Your task to perform on an android device: allow notifications from all sites in the chrome app Image 0: 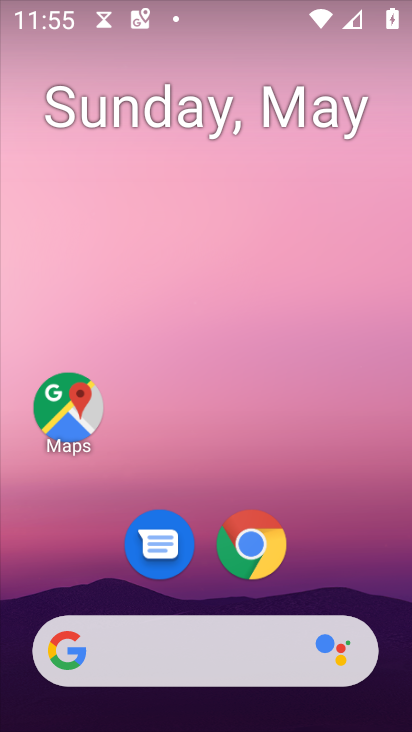
Step 0: click (246, 544)
Your task to perform on an android device: allow notifications from all sites in the chrome app Image 1: 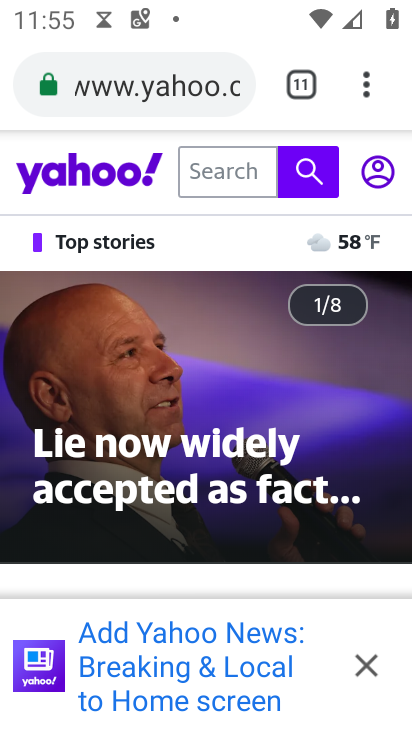
Step 1: click (356, 85)
Your task to perform on an android device: allow notifications from all sites in the chrome app Image 2: 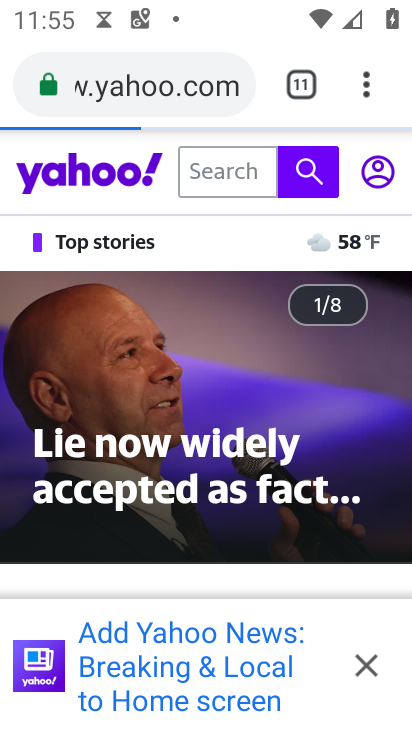
Step 2: click (354, 79)
Your task to perform on an android device: allow notifications from all sites in the chrome app Image 3: 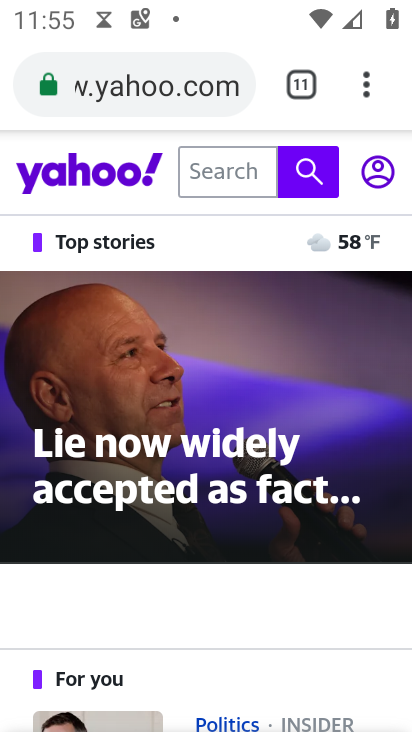
Step 3: click (379, 82)
Your task to perform on an android device: allow notifications from all sites in the chrome app Image 4: 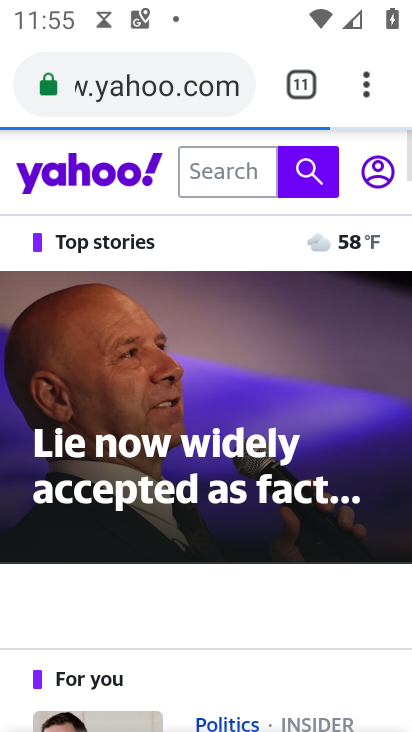
Step 4: click (378, 91)
Your task to perform on an android device: allow notifications from all sites in the chrome app Image 5: 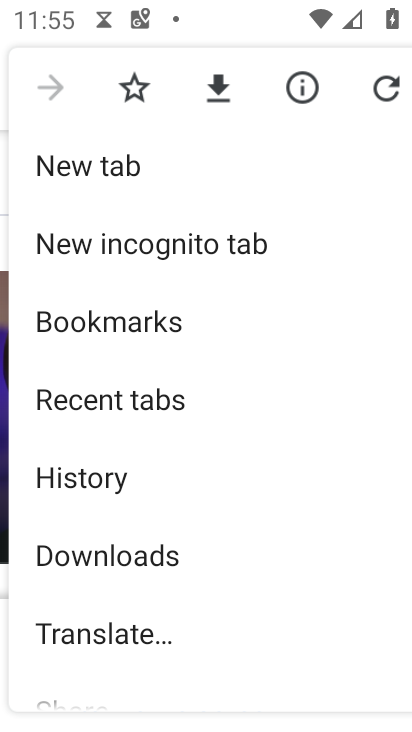
Step 5: drag from (264, 590) to (264, 287)
Your task to perform on an android device: allow notifications from all sites in the chrome app Image 6: 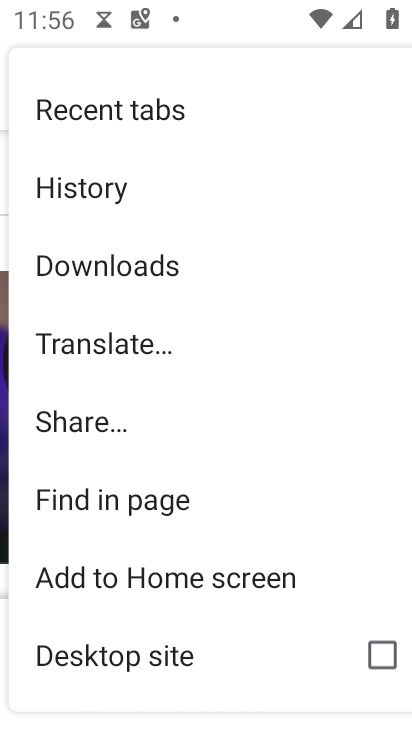
Step 6: drag from (150, 614) to (206, 178)
Your task to perform on an android device: allow notifications from all sites in the chrome app Image 7: 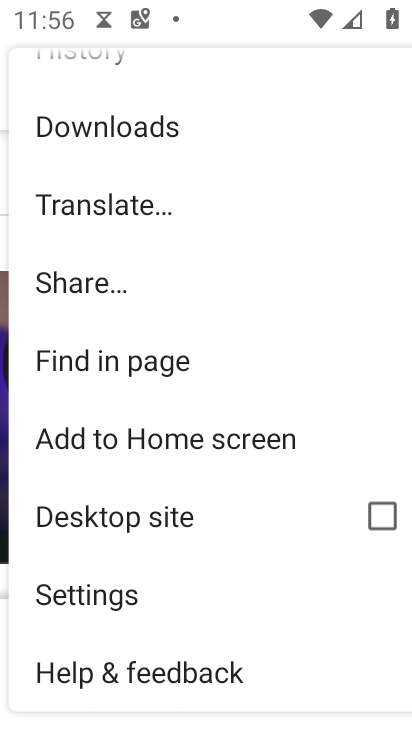
Step 7: click (114, 593)
Your task to perform on an android device: allow notifications from all sites in the chrome app Image 8: 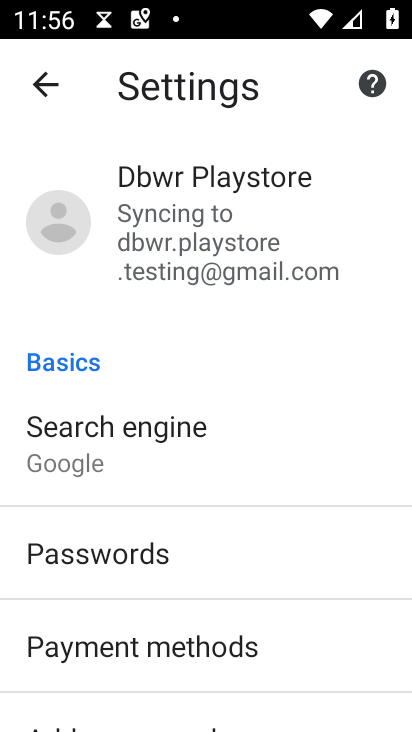
Step 8: drag from (263, 609) to (322, 238)
Your task to perform on an android device: allow notifications from all sites in the chrome app Image 9: 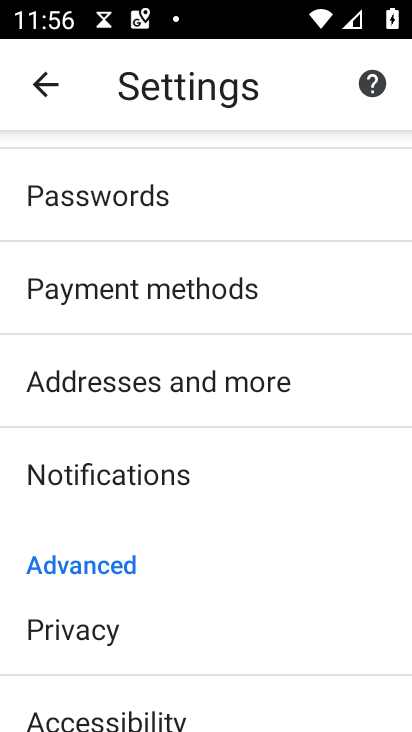
Step 9: drag from (206, 594) to (257, 344)
Your task to perform on an android device: allow notifications from all sites in the chrome app Image 10: 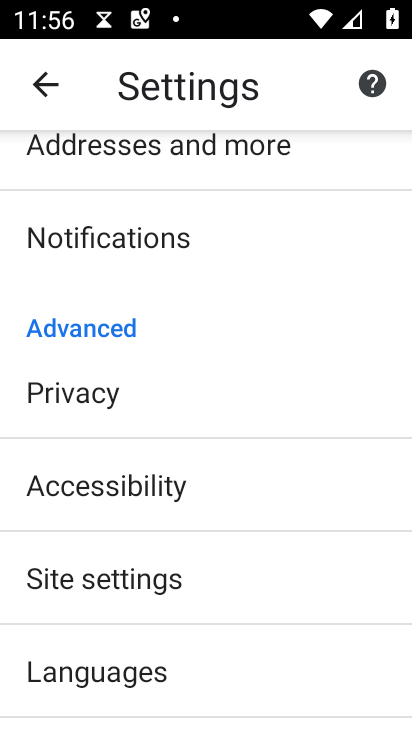
Step 10: drag from (243, 622) to (308, 372)
Your task to perform on an android device: allow notifications from all sites in the chrome app Image 11: 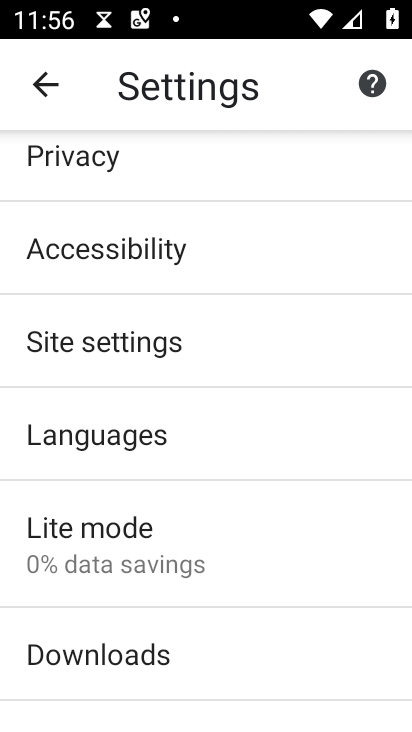
Step 11: drag from (176, 618) to (236, 328)
Your task to perform on an android device: allow notifications from all sites in the chrome app Image 12: 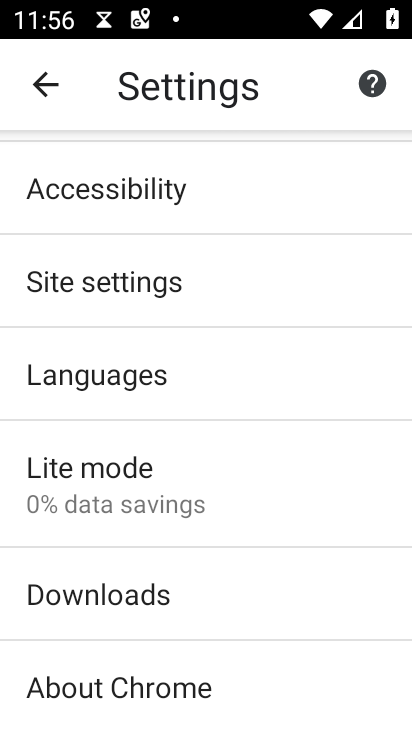
Step 12: click (138, 285)
Your task to perform on an android device: allow notifications from all sites in the chrome app Image 13: 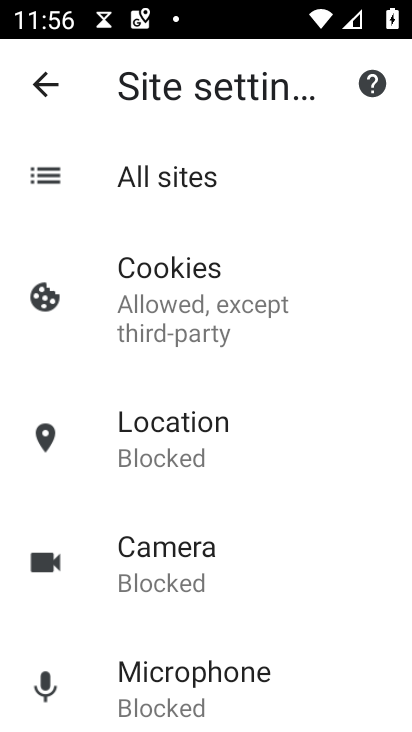
Step 13: click (181, 327)
Your task to perform on an android device: allow notifications from all sites in the chrome app Image 14: 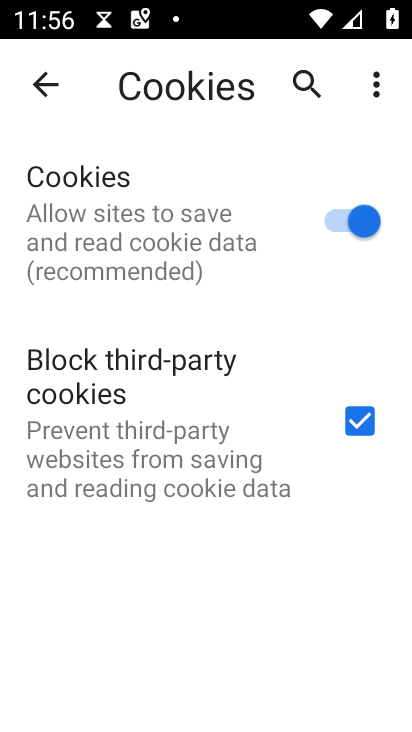
Step 14: click (42, 107)
Your task to perform on an android device: allow notifications from all sites in the chrome app Image 15: 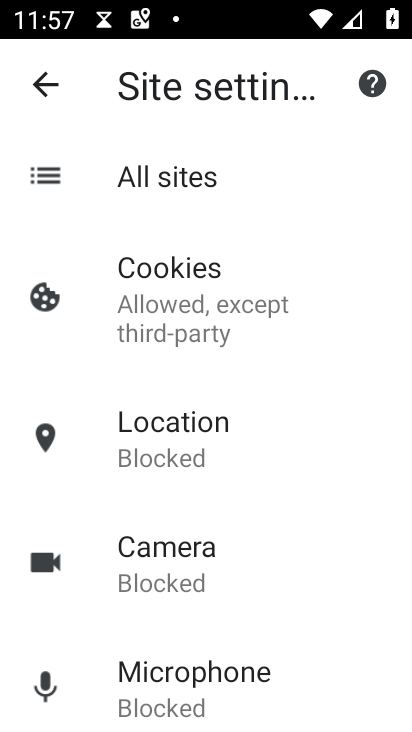
Step 15: task complete